Your task to perform on an android device: Add logitech g910 to the cart on newegg.com Image 0: 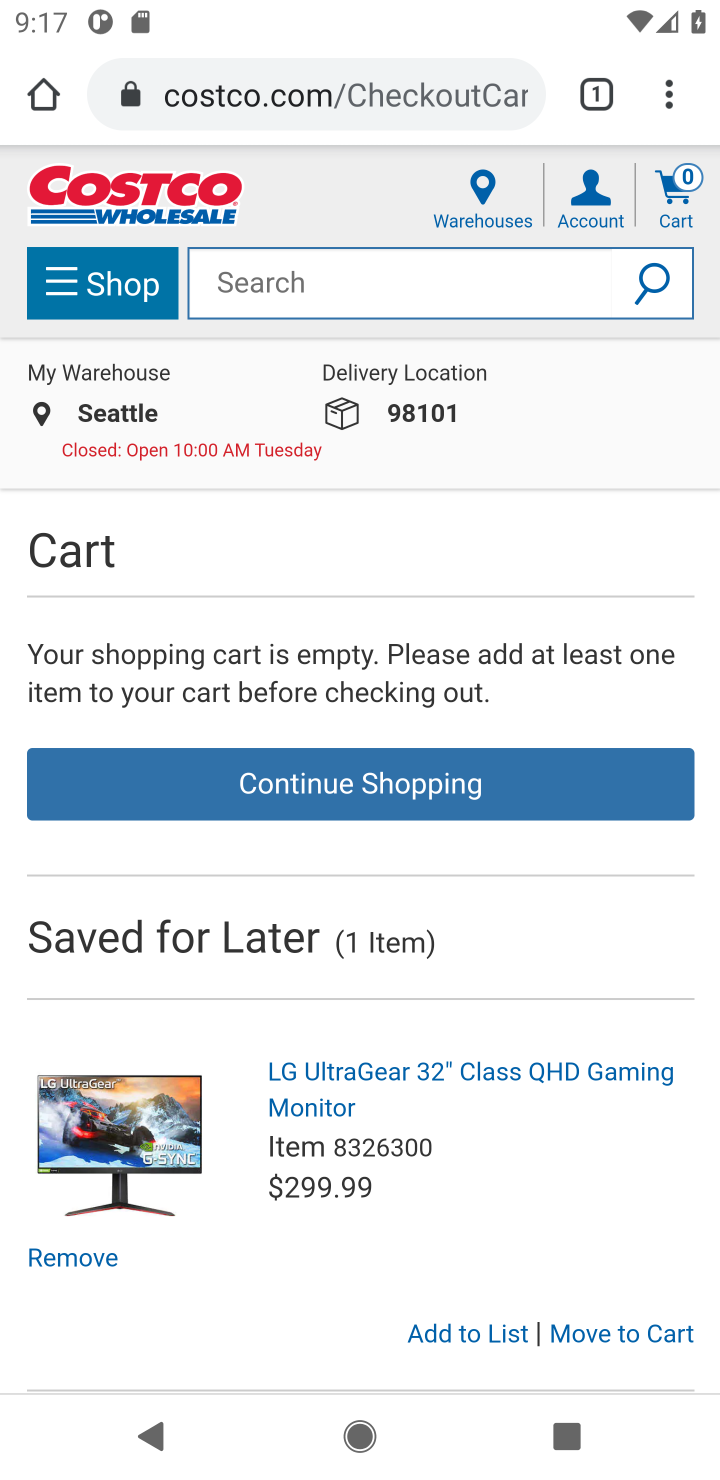
Step 0: click (254, 104)
Your task to perform on an android device: Add logitech g910 to the cart on newegg.com Image 1: 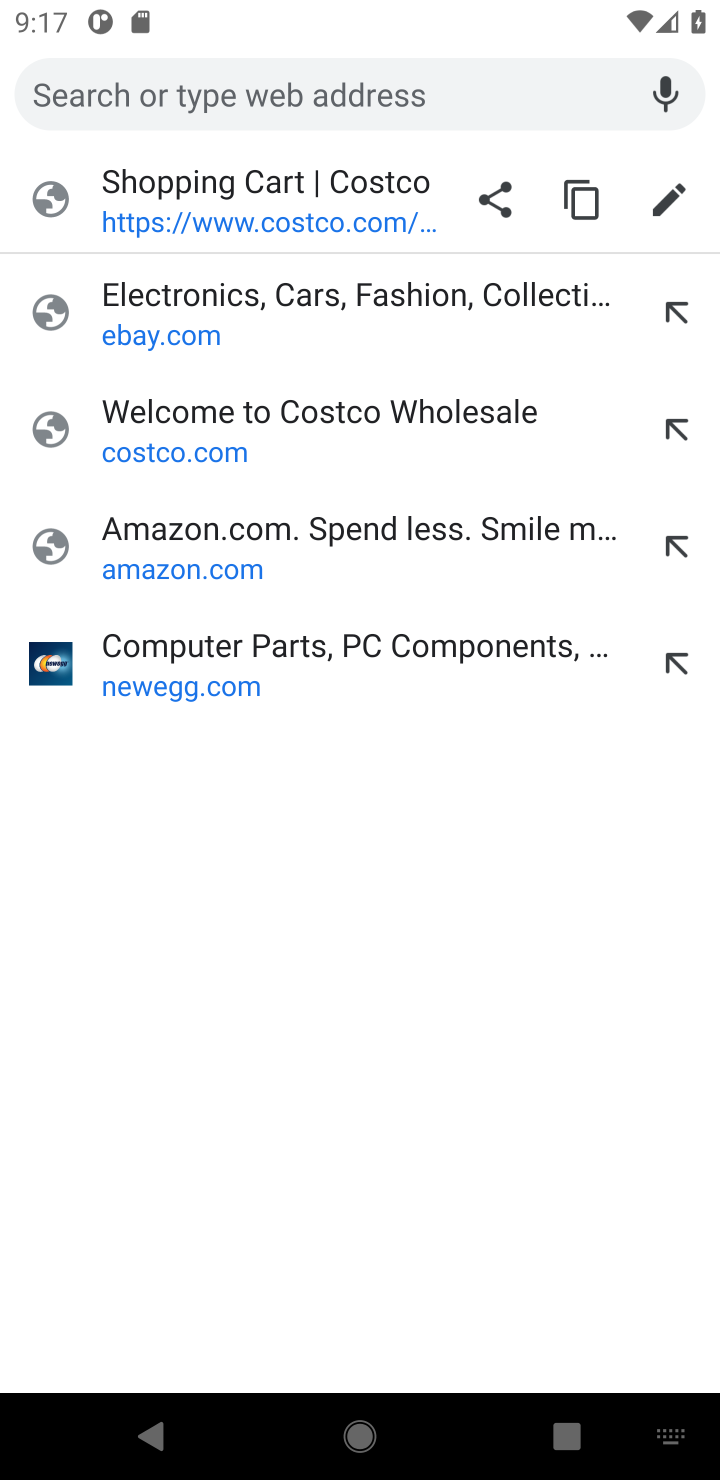
Step 1: click (155, 680)
Your task to perform on an android device: Add logitech g910 to the cart on newegg.com Image 2: 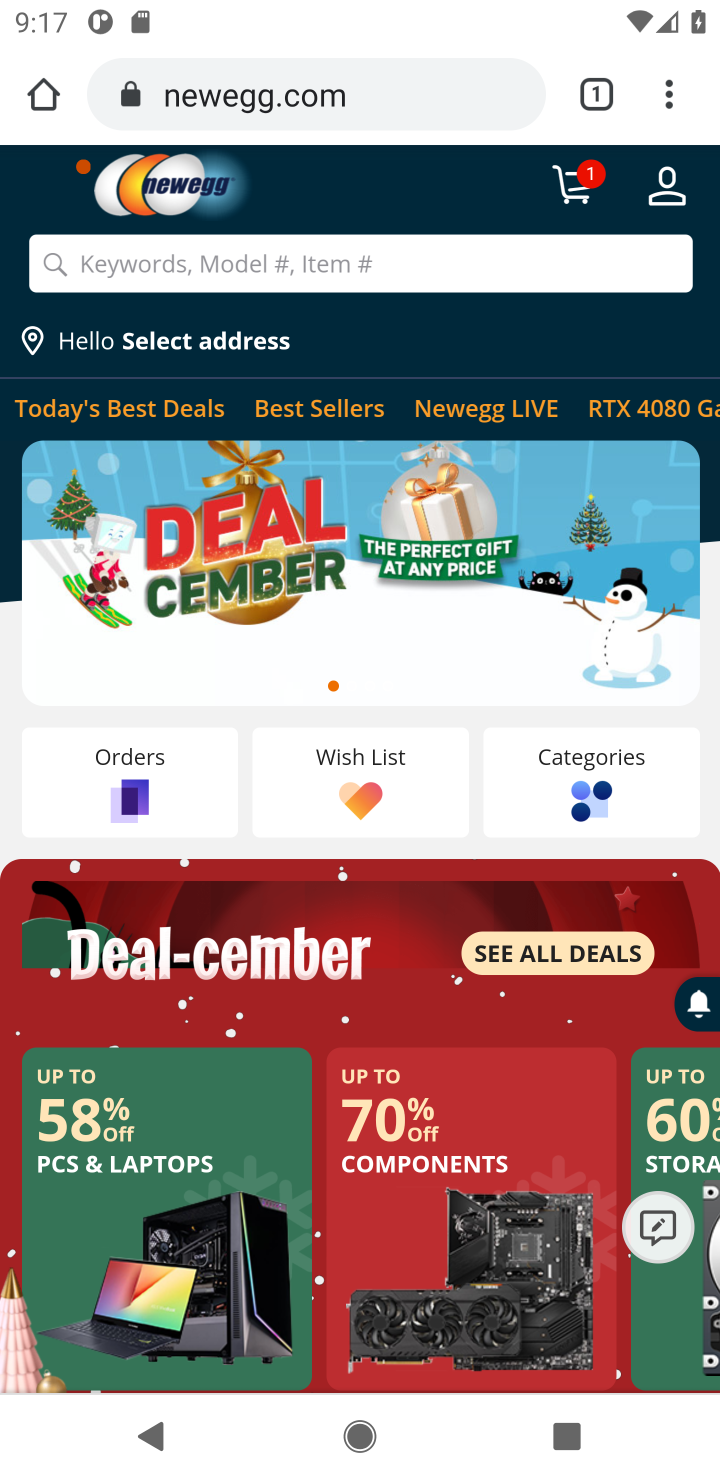
Step 2: click (116, 272)
Your task to perform on an android device: Add logitech g910 to the cart on newegg.com Image 3: 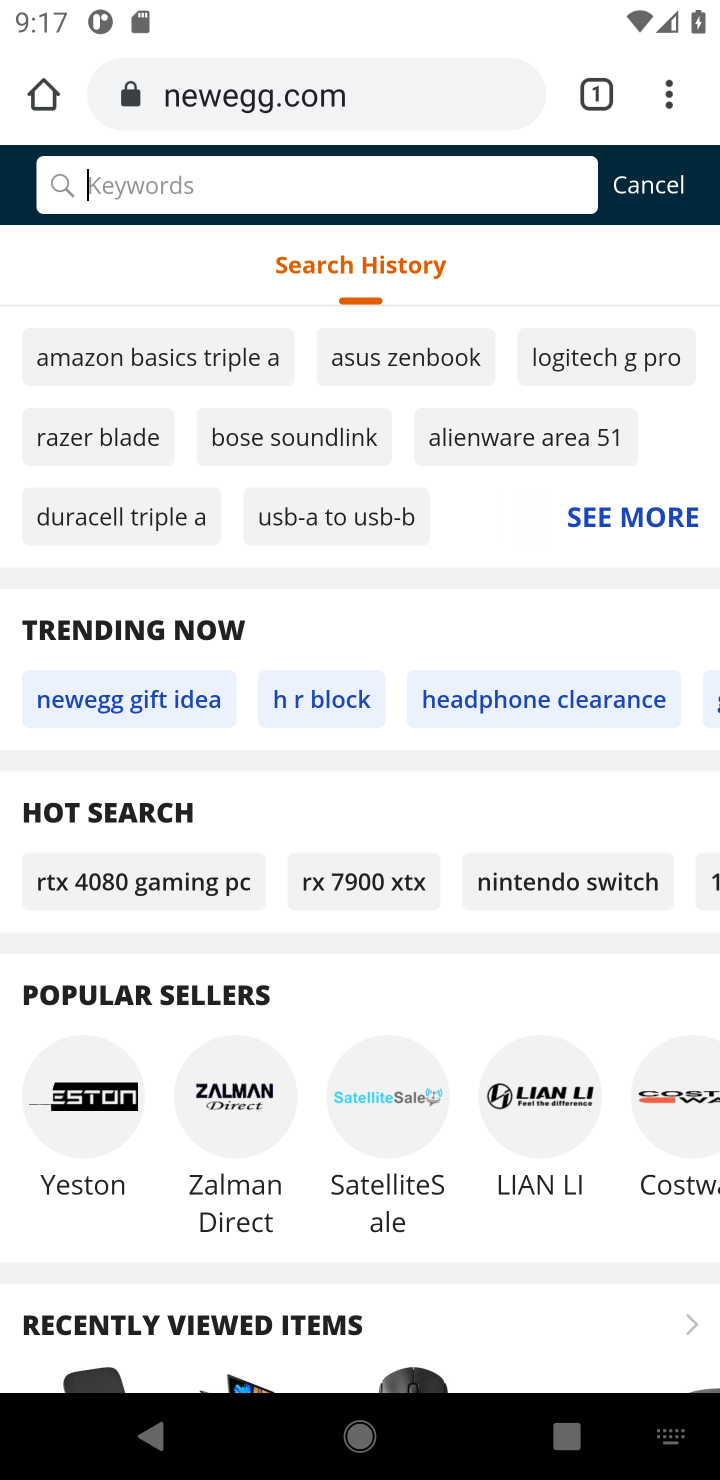
Step 3: type "logitech g910"
Your task to perform on an android device: Add logitech g910 to the cart on newegg.com Image 4: 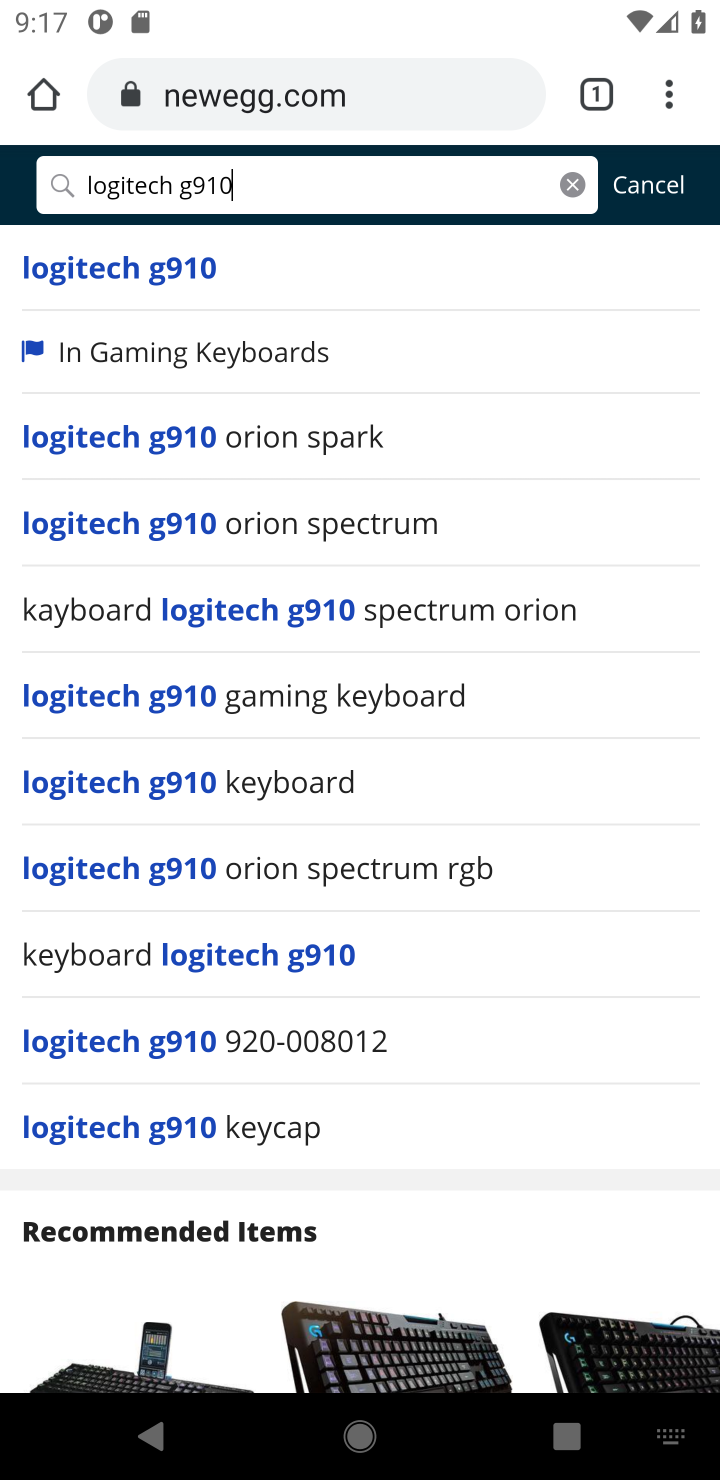
Step 4: click (156, 283)
Your task to perform on an android device: Add logitech g910 to the cart on newegg.com Image 5: 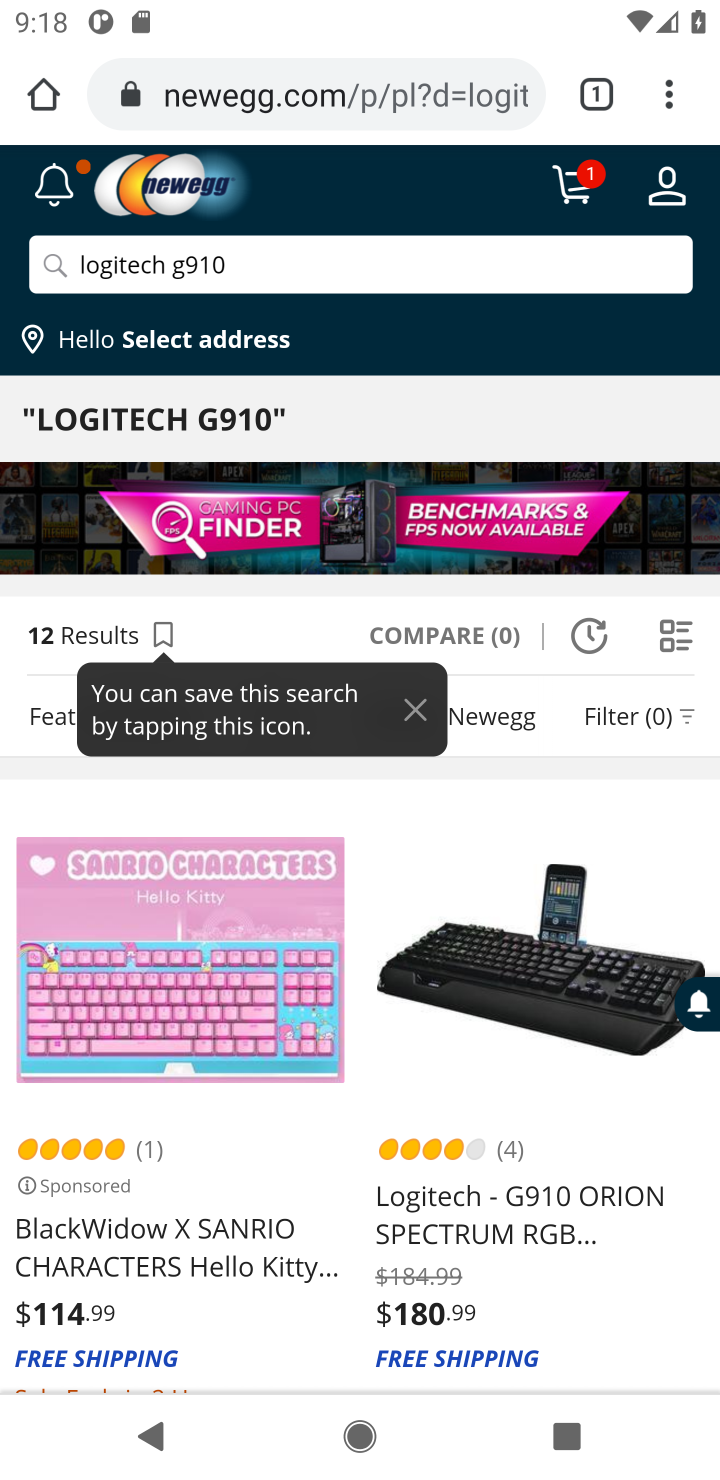
Step 5: drag from (245, 1012) to (192, 680)
Your task to perform on an android device: Add logitech g910 to the cart on newegg.com Image 6: 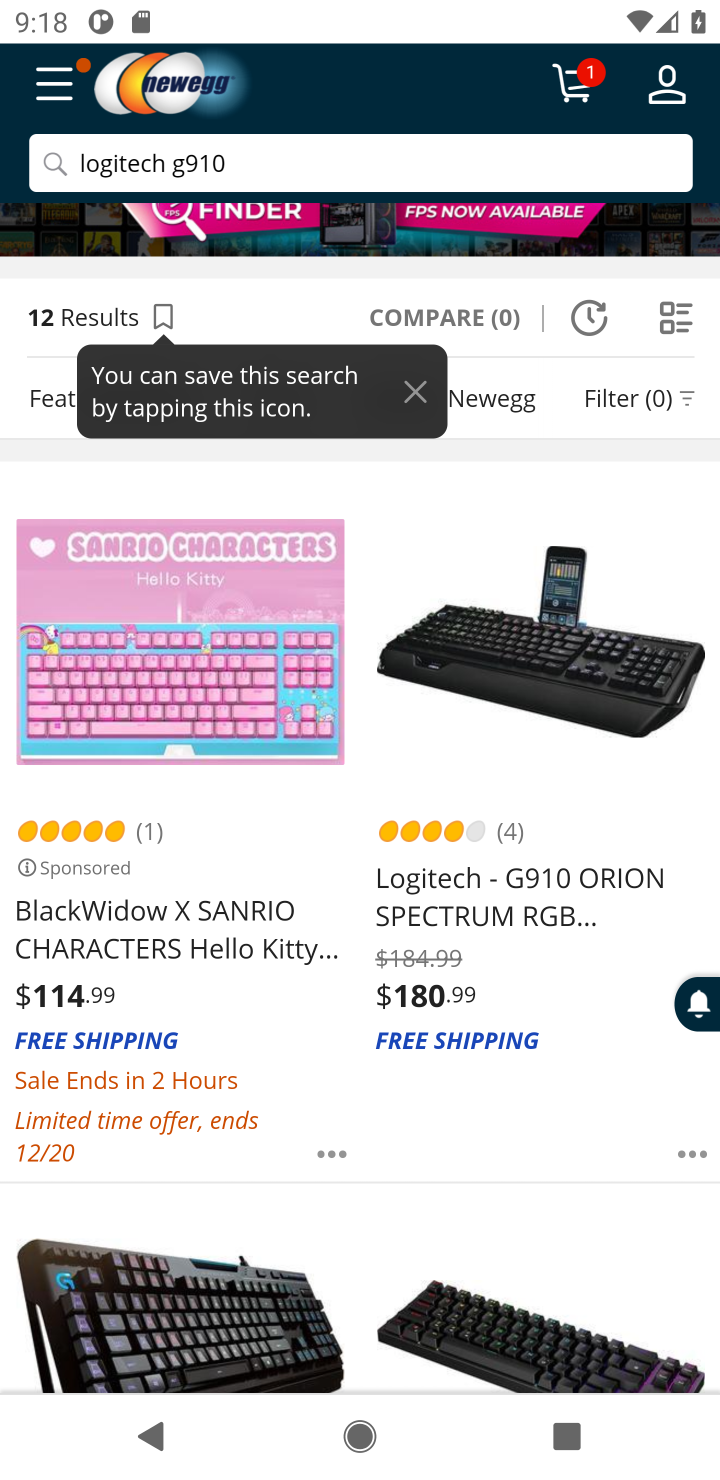
Step 6: click (483, 905)
Your task to perform on an android device: Add logitech g910 to the cart on newegg.com Image 7: 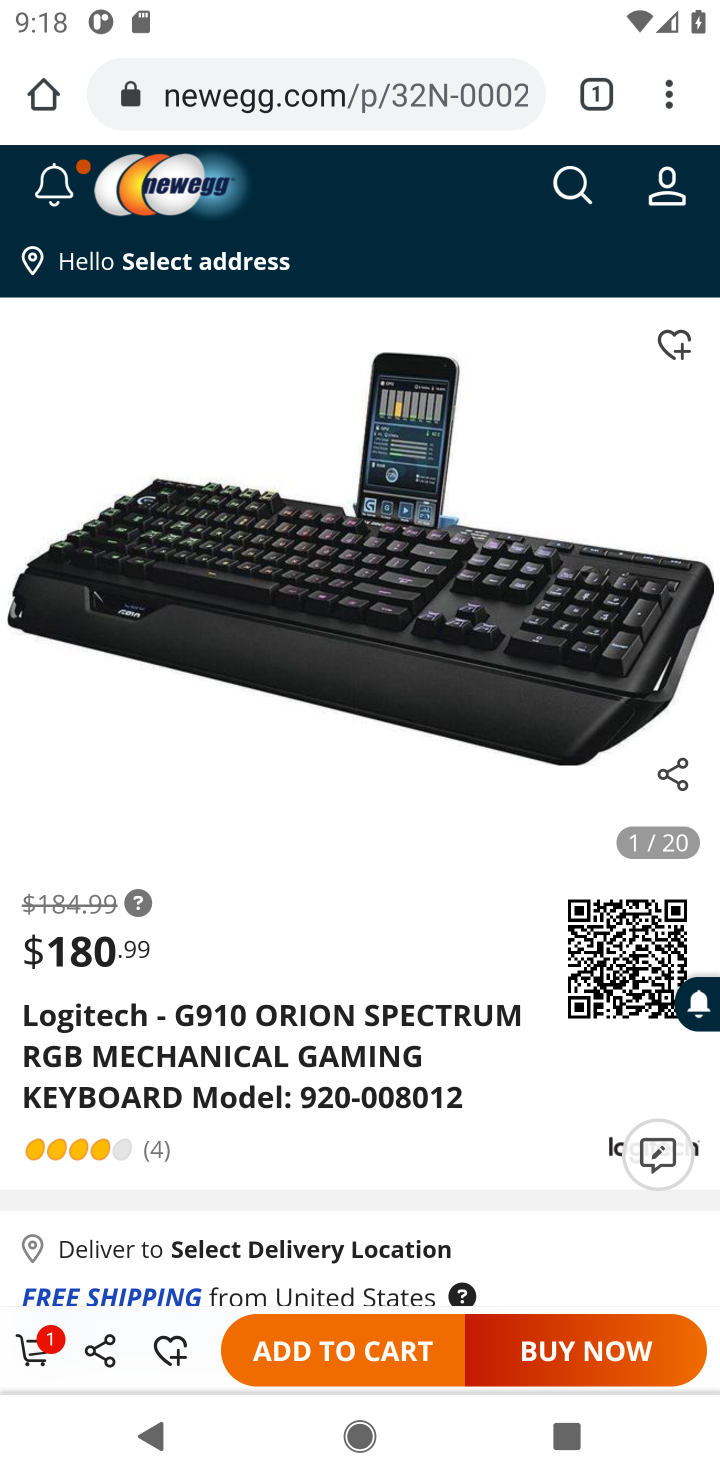
Step 7: click (339, 1354)
Your task to perform on an android device: Add logitech g910 to the cart on newegg.com Image 8: 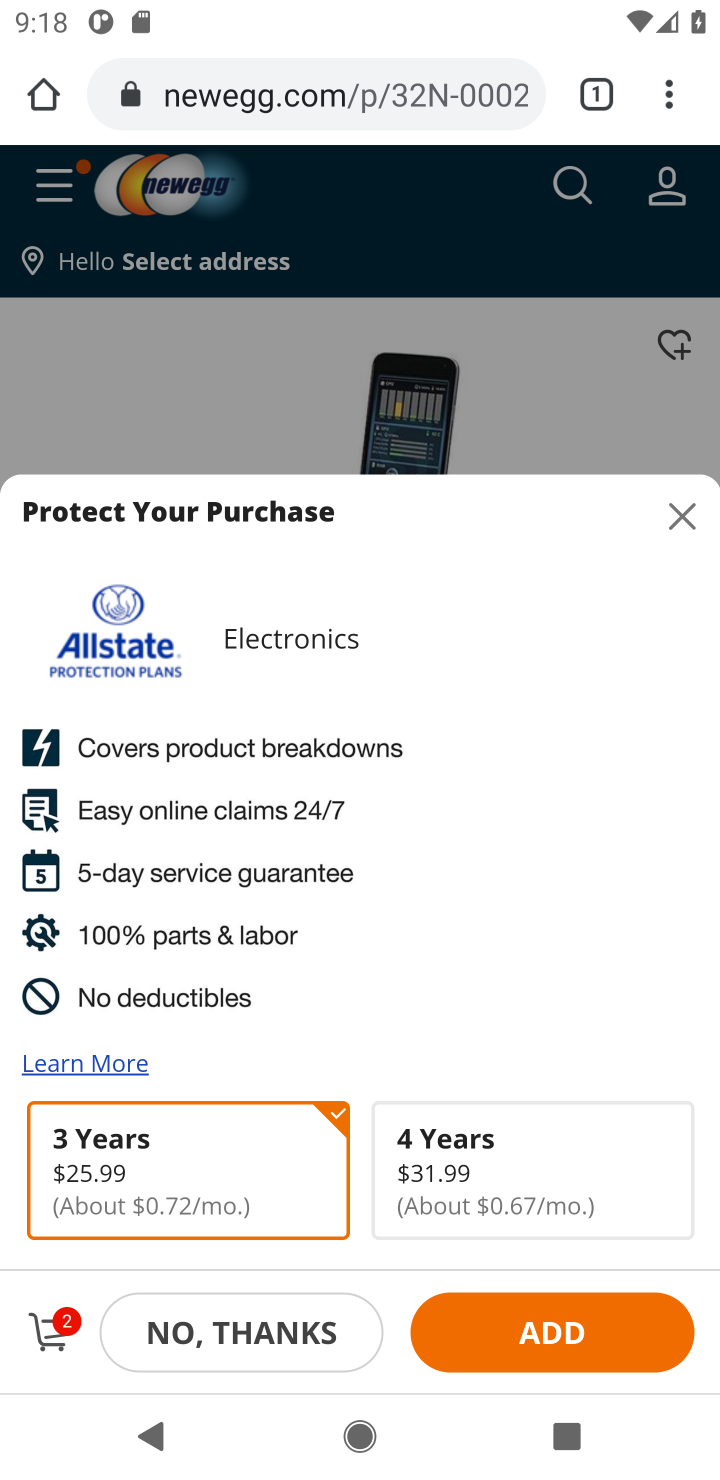
Step 8: task complete